Your task to perform on an android device: Go to network settings Image 0: 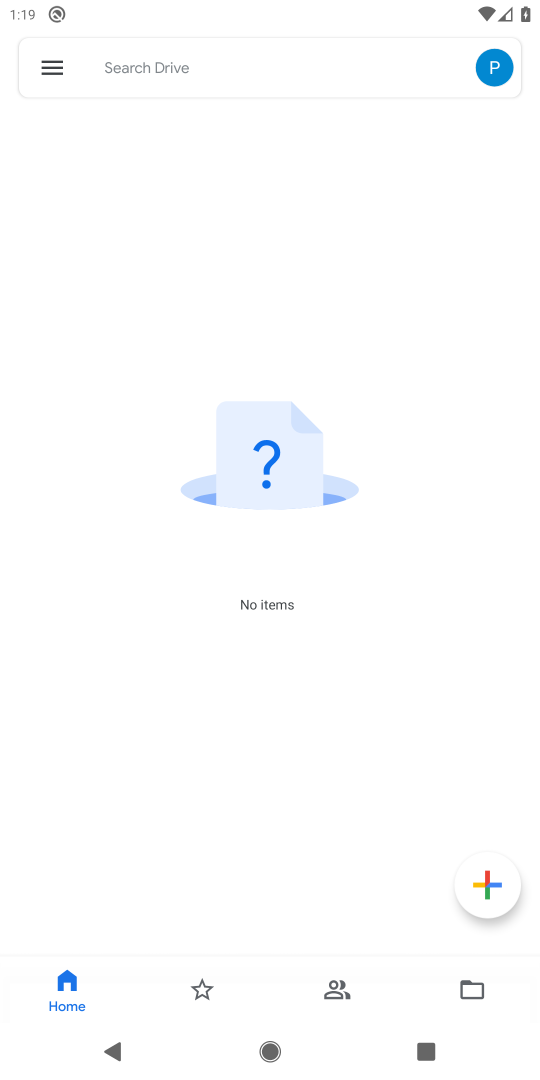
Step 0: press home button
Your task to perform on an android device: Go to network settings Image 1: 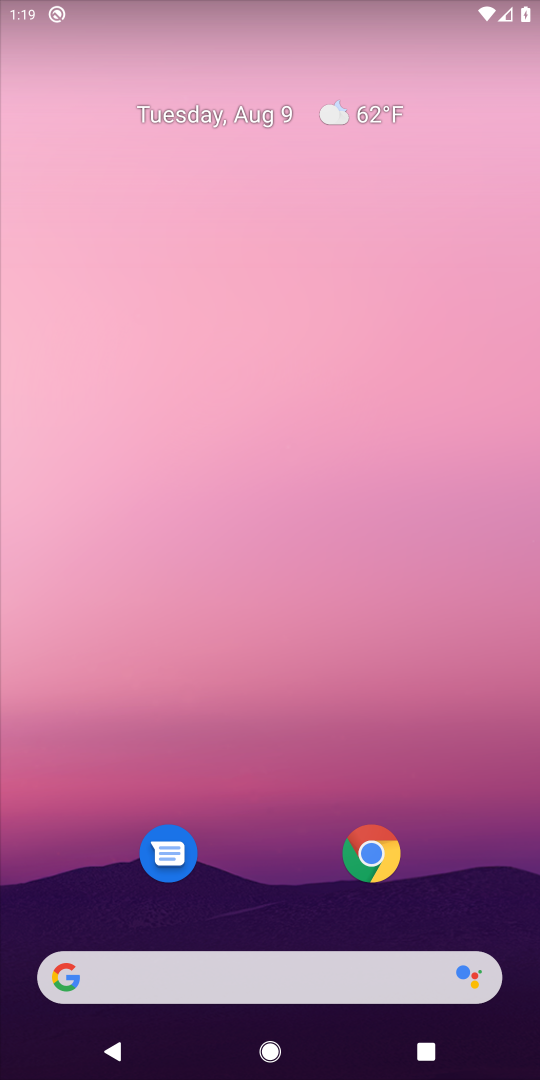
Step 1: drag from (269, 846) to (319, 80)
Your task to perform on an android device: Go to network settings Image 2: 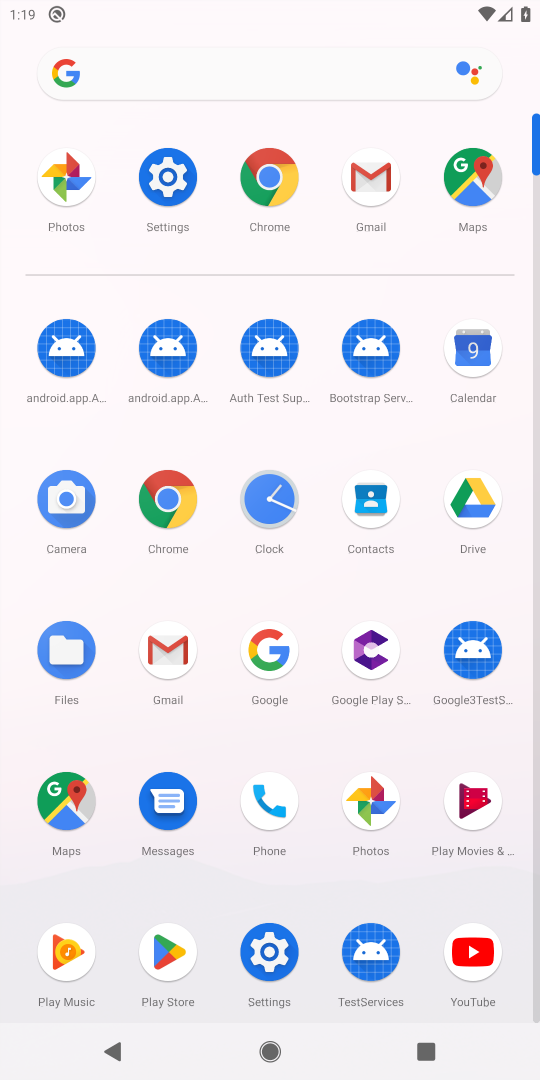
Step 2: click (146, 186)
Your task to perform on an android device: Go to network settings Image 3: 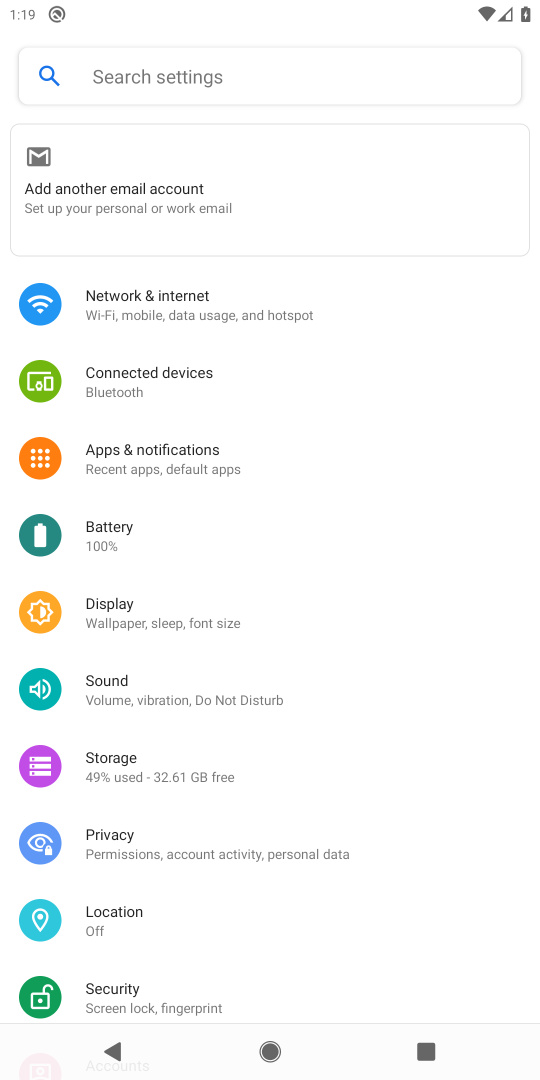
Step 3: click (145, 302)
Your task to perform on an android device: Go to network settings Image 4: 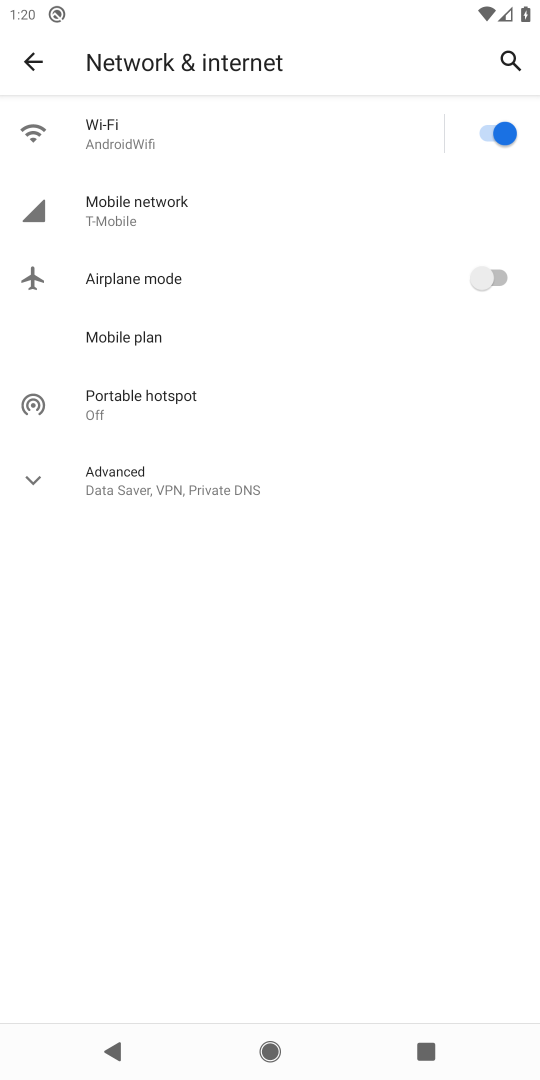
Step 4: task complete